Your task to perform on an android device: turn on improve location accuracy Image 0: 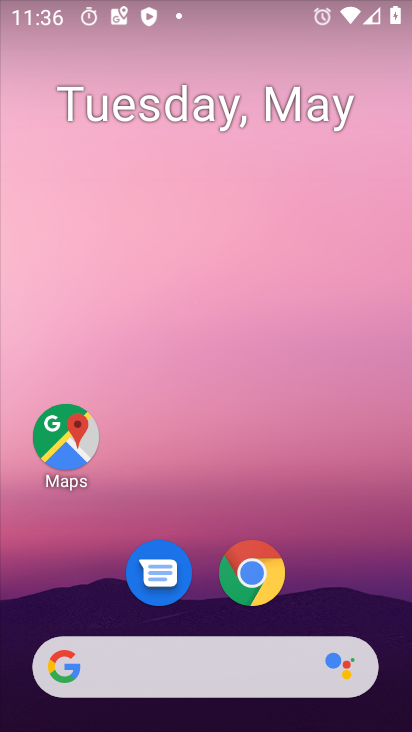
Step 0: press home button
Your task to perform on an android device: turn on improve location accuracy Image 1: 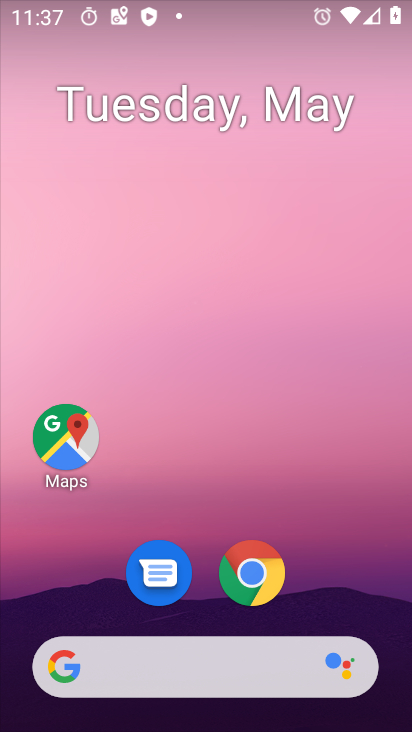
Step 1: drag from (270, 703) to (315, 214)
Your task to perform on an android device: turn on improve location accuracy Image 2: 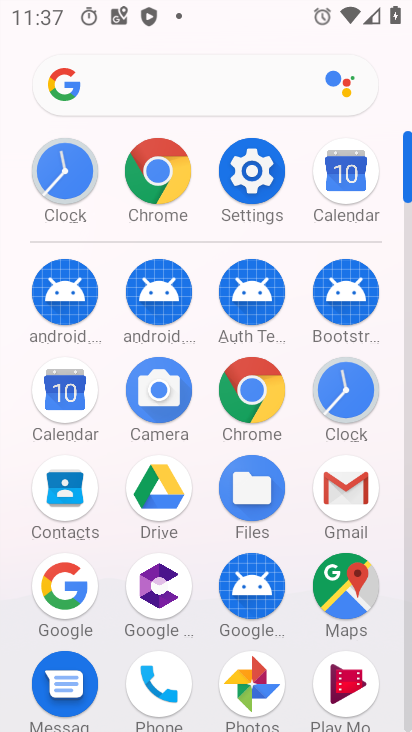
Step 2: click (265, 164)
Your task to perform on an android device: turn on improve location accuracy Image 3: 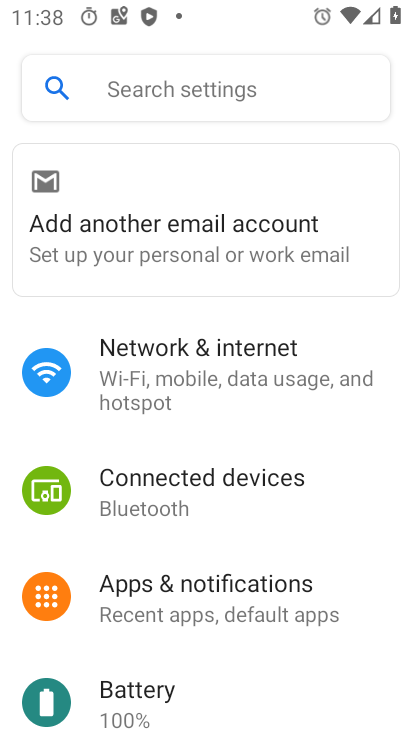
Step 3: click (186, 95)
Your task to perform on an android device: turn on improve location accuracy Image 4: 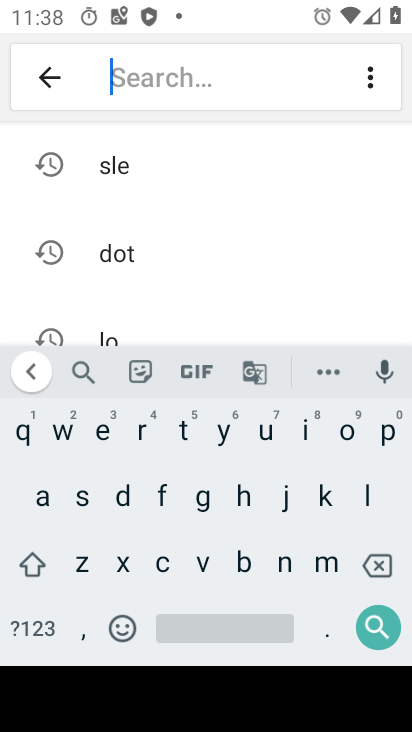
Step 4: click (118, 320)
Your task to perform on an android device: turn on improve location accuracy Image 5: 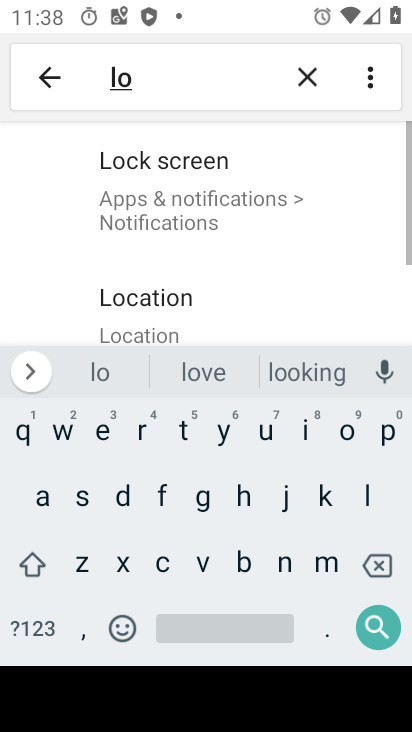
Step 5: click (118, 320)
Your task to perform on an android device: turn on improve location accuracy Image 6: 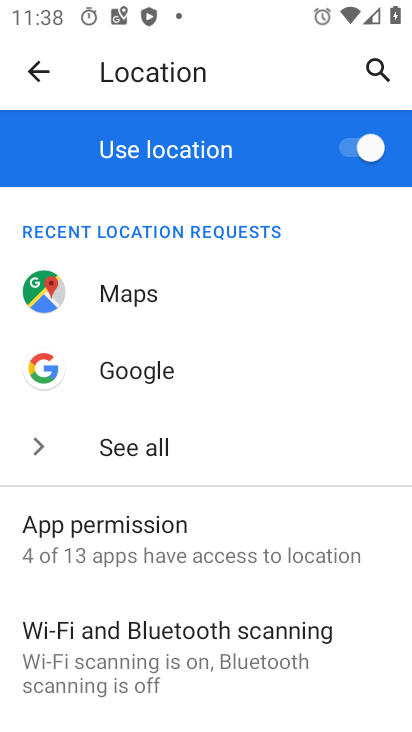
Step 6: drag from (143, 601) to (153, 394)
Your task to perform on an android device: turn on improve location accuracy Image 7: 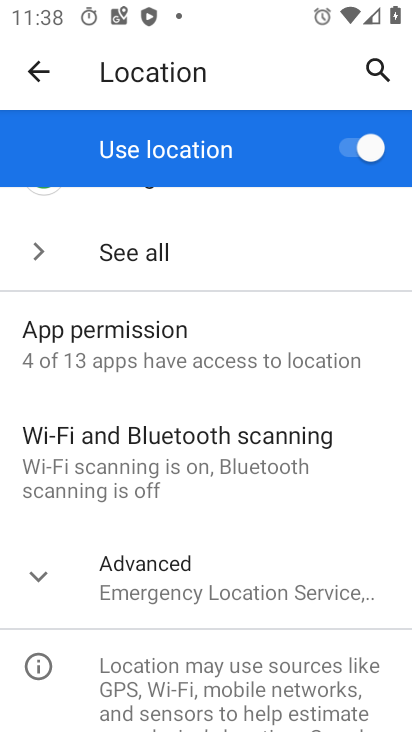
Step 7: click (112, 550)
Your task to perform on an android device: turn on improve location accuracy Image 8: 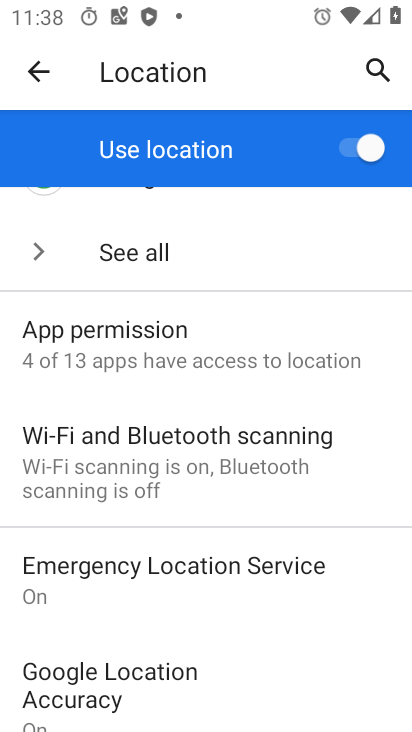
Step 8: click (114, 670)
Your task to perform on an android device: turn on improve location accuracy Image 9: 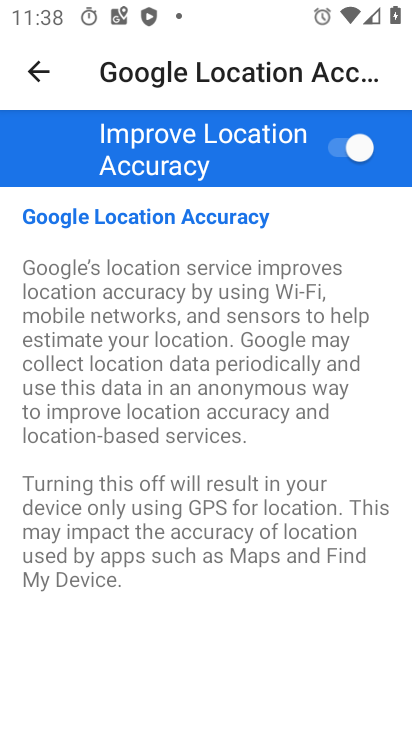
Step 9: click (353, 132)
Your task to perform on an android device: turn on improve location accuracy Image 10: 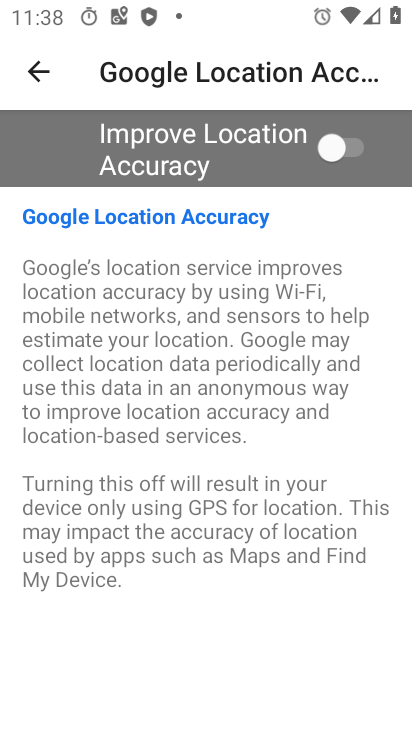
Step 10: click (351, 133)
Your task to perform on an android device: turn on improve location accuracy Image 11: 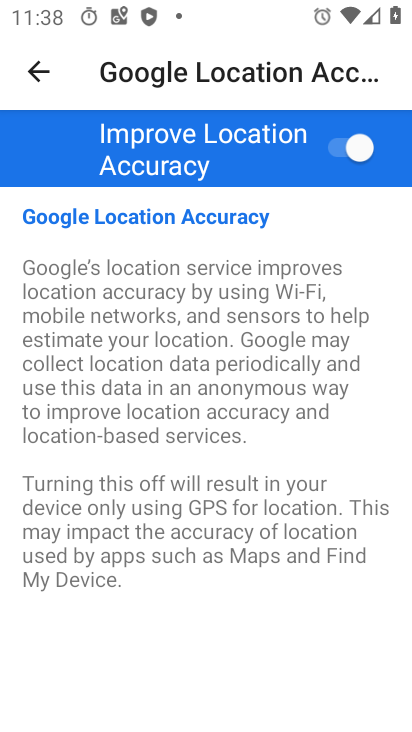
Step 11: task complete